Your task to perform on an android device: add a contact in the contacts app Image 0: 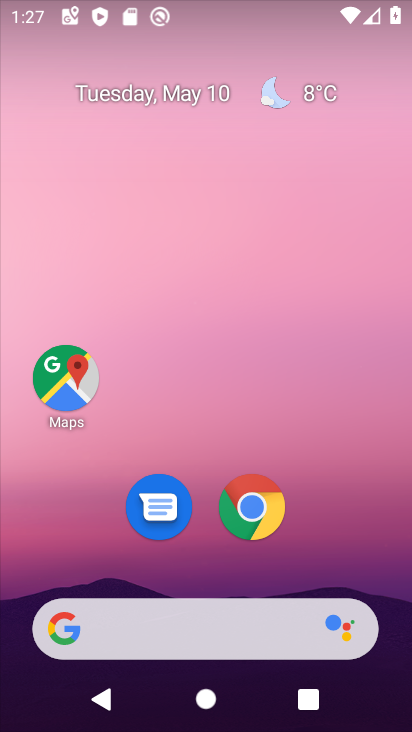
Step 0: drag from (205, 667) to (275, 248)
Your task to perform on an android device: add a contact in the contacts app Image 1: 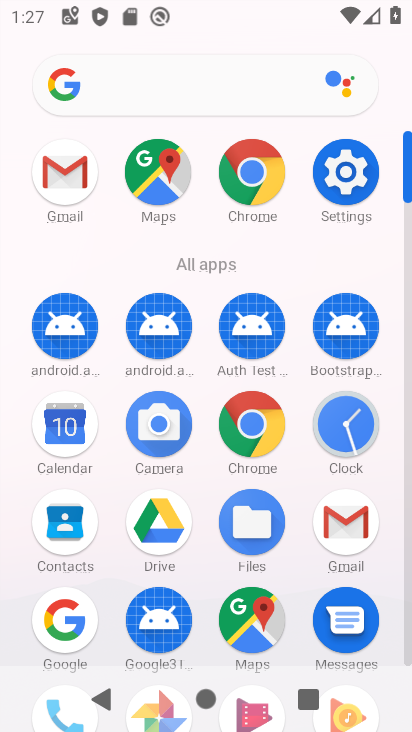
Step 1: drag from (214, 567) to (191, 422)
Your task to perform on an android device: add a contact in the contacts app Image 2: 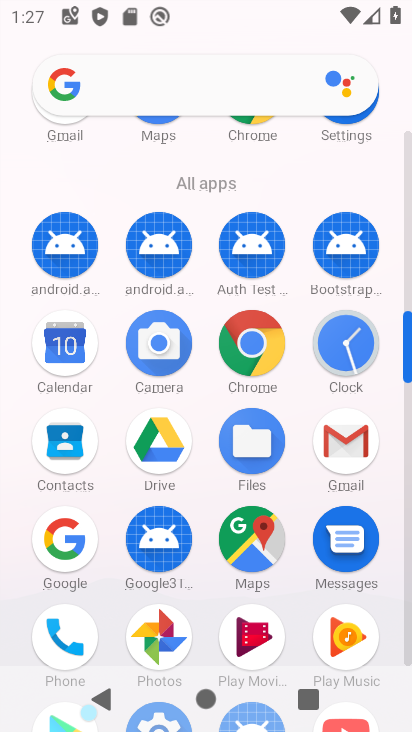
Step 2: click (62, 617)
Your task to perform on an android device: add a contact in the contacts app Image 3: 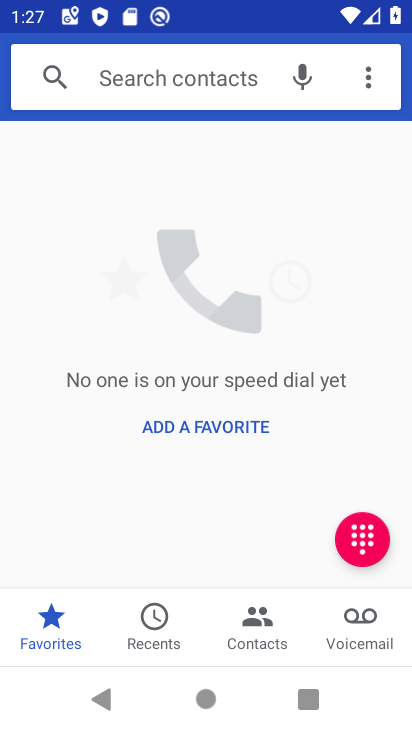
Step 3: click (252, 624)
Your task to perform on an android device: add a contact in the contacts app Image 4: 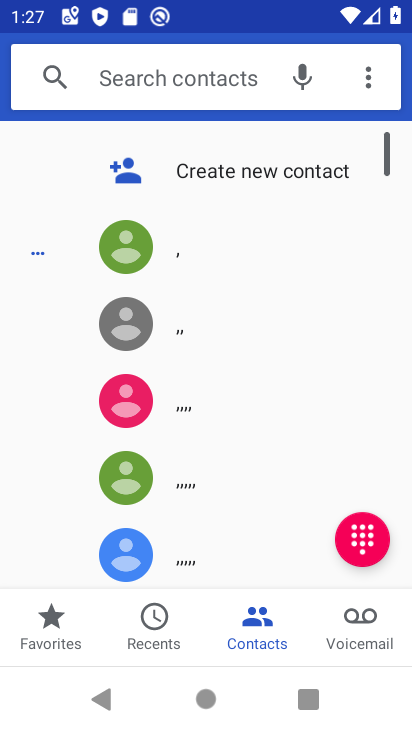
Step 4: click (250, 179)
Your task to perform on an android device: add a contact in the contacts app Image 5: 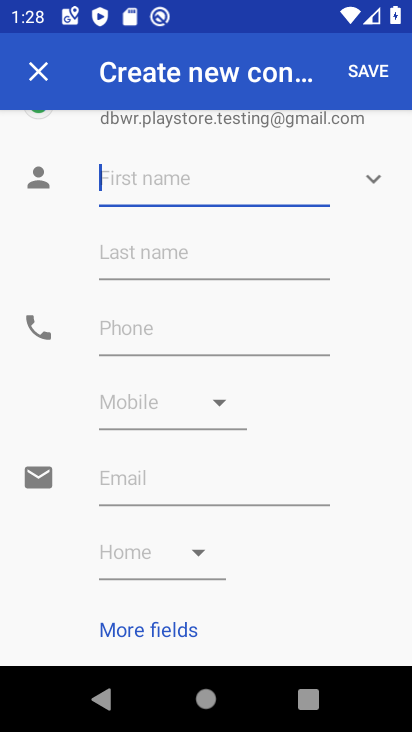
Step 5: click (131, 181)
Your task to perform on an android device: add a contact in the contacts app Image 6: 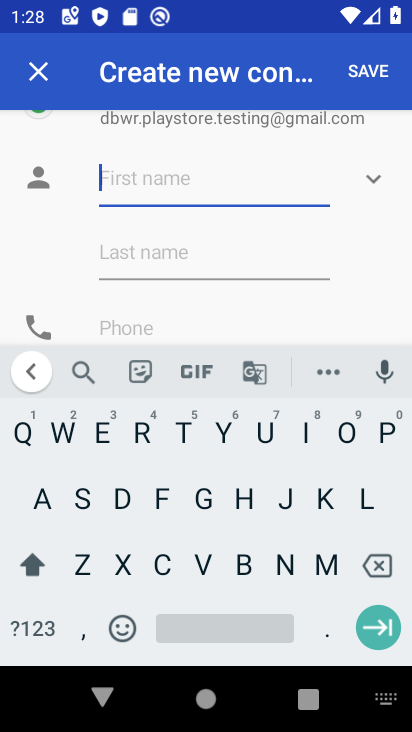
Step 6: click (189, 429)
Your task to perform on an android device: add a contact in the contacts app Image 7: 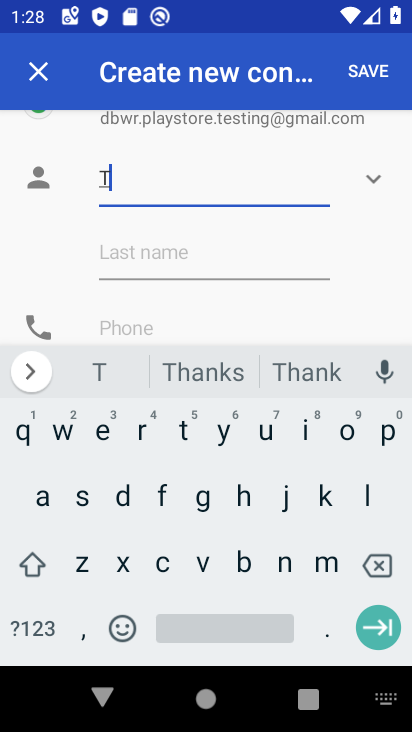
Step 7: click (240, 489)
Your task to perform on an android device: add a contact in the contacts app Image 8: 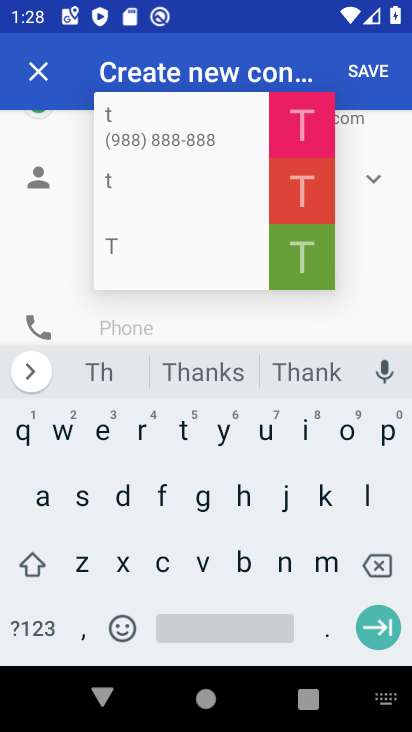
Step 8: click (193, 500)
Your task to perform on an android device: add a contact in the contacts app Image 9: 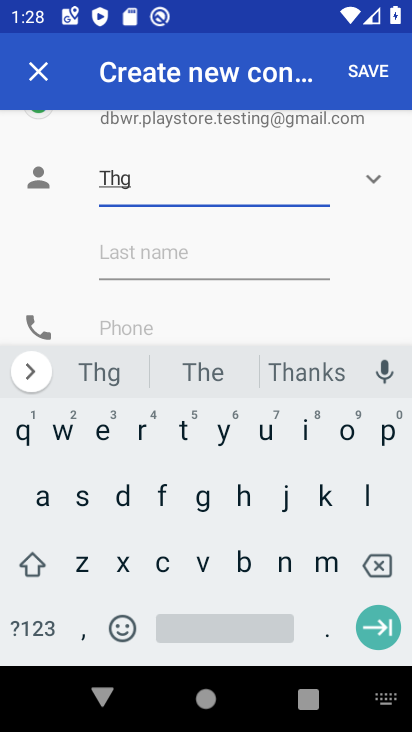
Step 9: click (144, 326)
Your task to perform on an android device: add a contact in the contacts app Image 10: 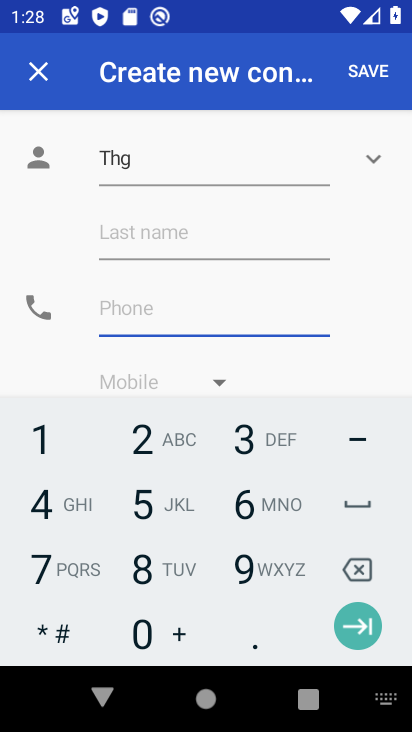
Step 10: click (136, 496)
Your task to perform on an android device: add a contact in the contacts app Image 11: 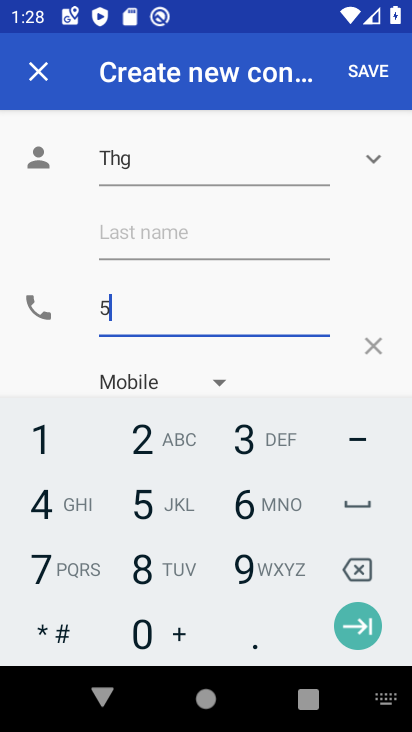
Step 11: click (144, 558)
Your task to perform on an android device: add a contact in the contacts app Image 12: 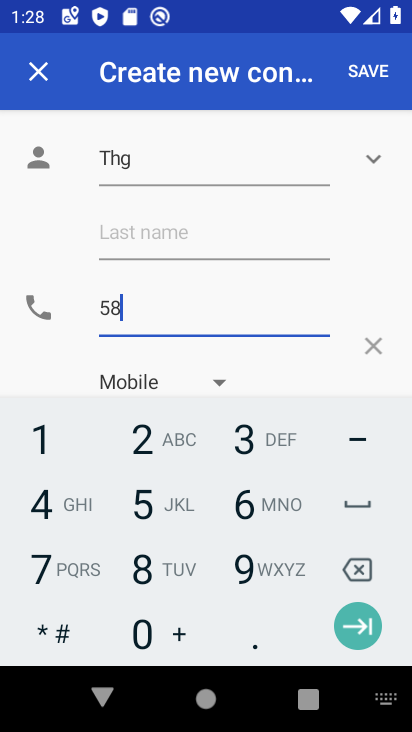
Step 12: click (229, 502)
Your task to perform on an android device: add a contact in the contacts app Image 13: 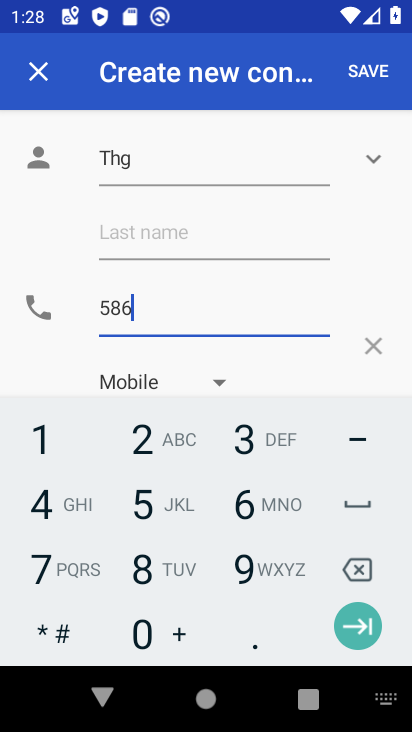
Step 13: click (156, 491)
Your task to perform on an android device: add a contact in the contacts app Image 14: 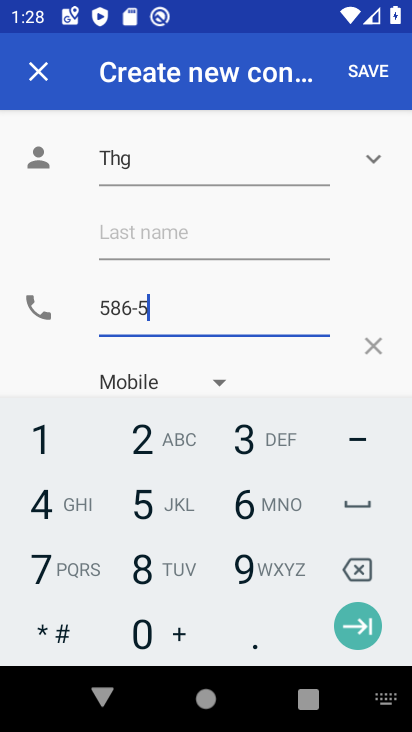
Step 14: click (153, 567)
Your task to perform on an android device: add a contact in the contacts app Image 15: 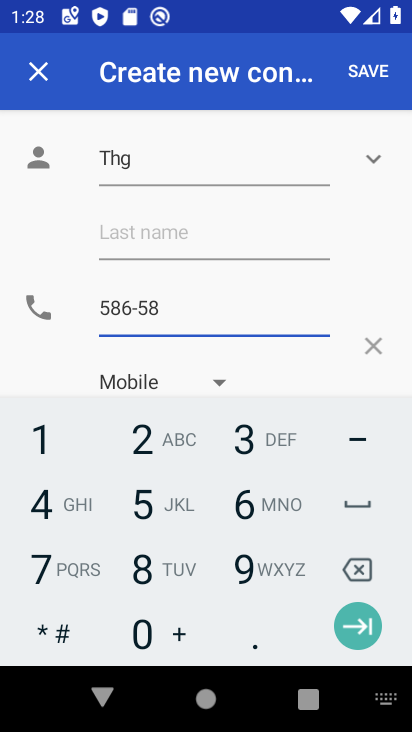
Step 15: click (42, 514)
Your task to perform on an android device: add a contact in the contacts app Image 16: 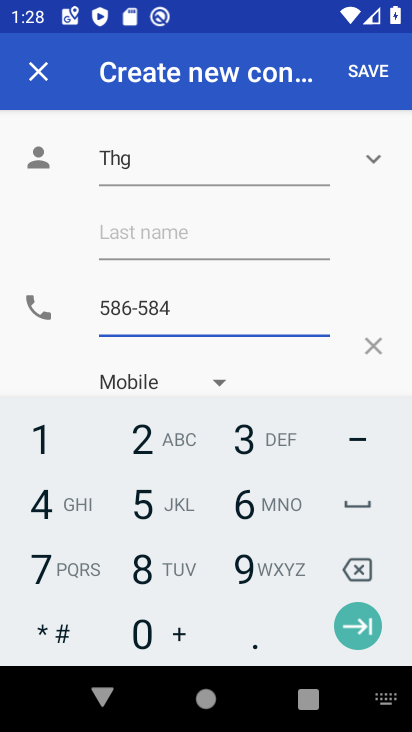
Step 16: click (158, 597)
Your task to perform on an android device: add a contact in the contacts app Image 17: 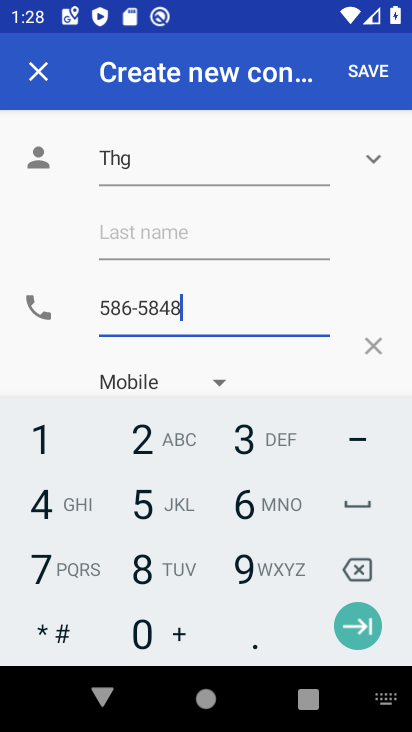
Step 17: click (165, 529)
Your task to perform on an android device: add a contact in the contacts app Image 18: 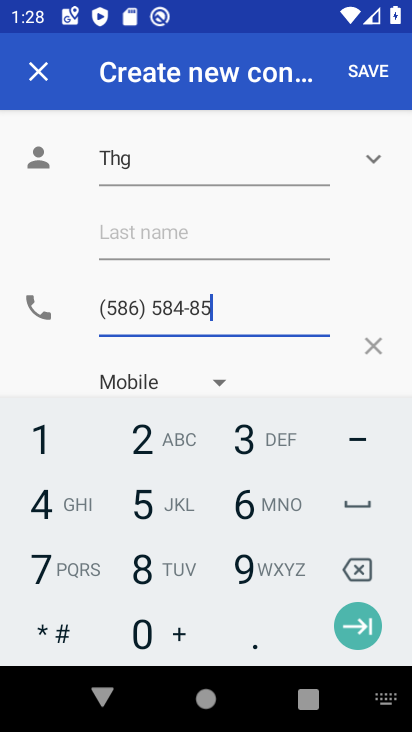
Step 18: click (134, 498)
Your task to perform on an android device: add a contact in the contacts app Image 19: 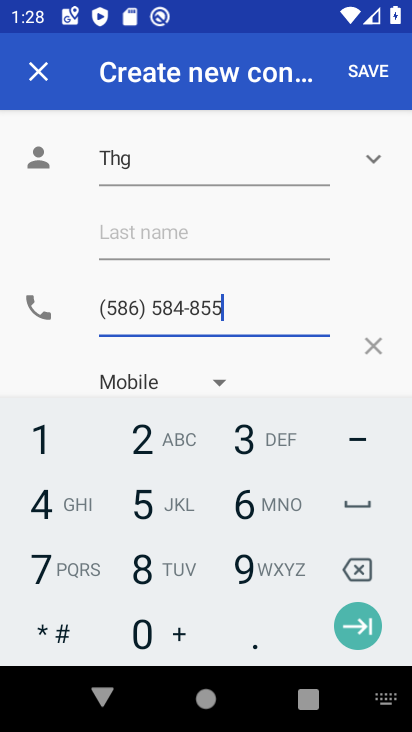
Step 19: click (59, 498)
Your task to perform on an android device: add a contact in the contacts app Image 20: 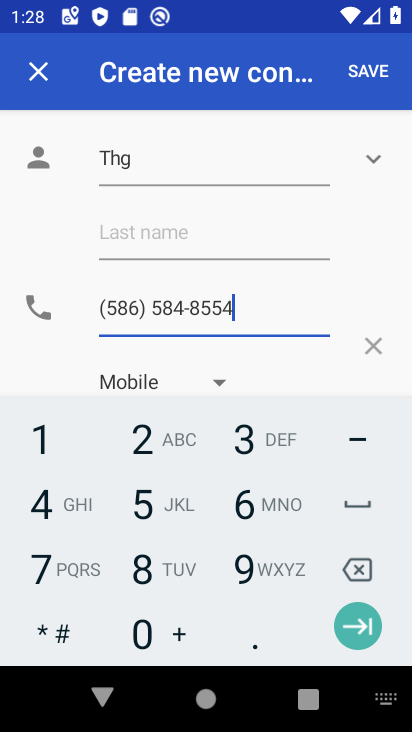
Step 20: click (357, 78)
Your task to perform on an android device: add a contact in the contacts app Image 21: 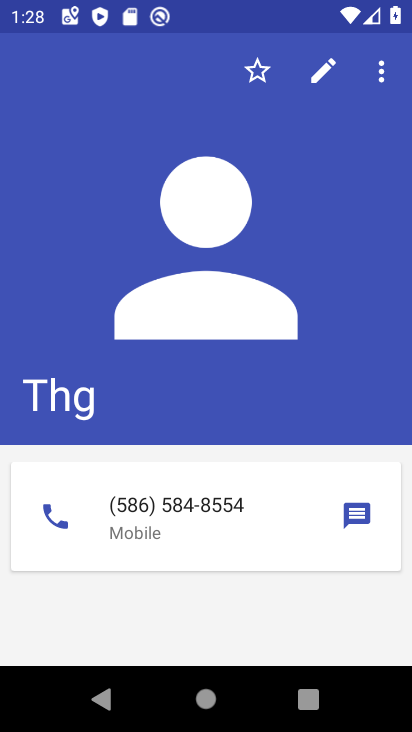
Step 21: task complete